Your task to perform on an android device: View the shopping cart on amazon.com. Add usb-a to the cart on amazon.com Image 0: 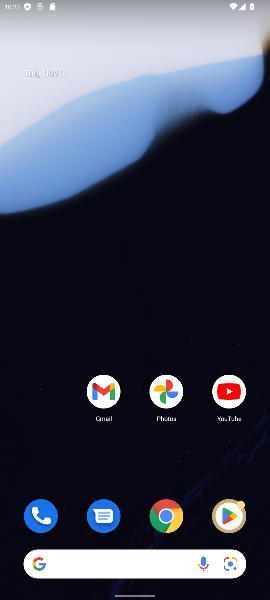
Step 0: click (155, 564)
Your task to perform on an android device: View the shopping cart on amazon.com. Add usb-a to the cart on amazon.com Image 1: 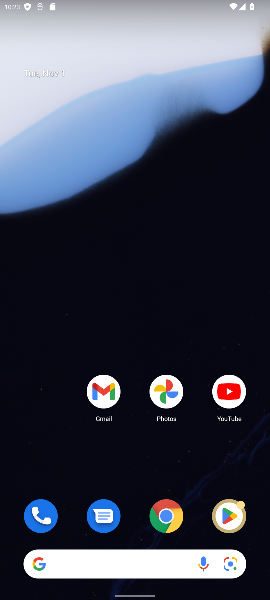
Step 1: click (98, 564)
Your task to perform on an android device: View the shopping cart on amazon.com. Add usb-a to the cart on amazon.com Image 2: 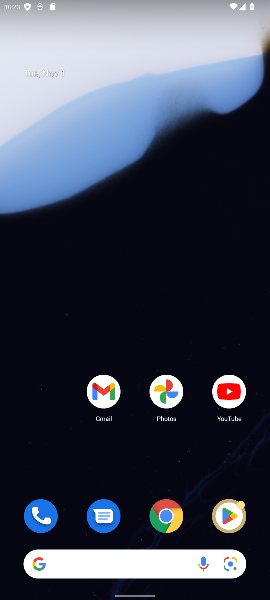
Step 2: type "usb-a on amazon.com"
Your task to perform on an android device: View the shopping cart on amazon.com. Add usb-a to the cart on amazon.com Image 3: 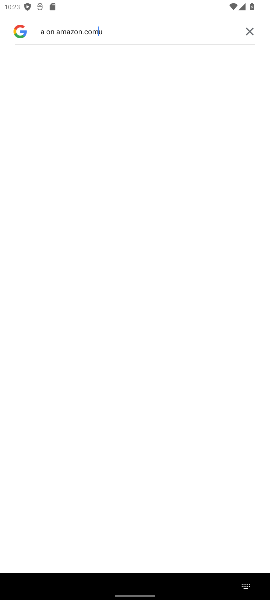
Step 3: click (83, 567)
Your task to perform on an android device: View the shopping cart on amazon.com. Add usb-a to the cart on amazon.com Image 4: 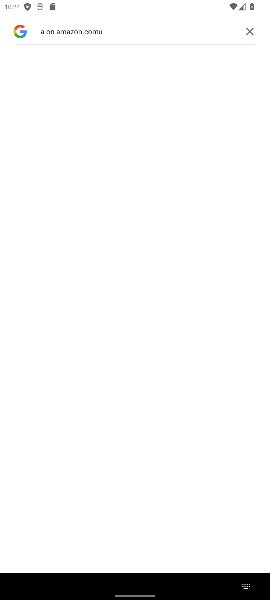
Step 4: click (252, 31)
Your task to perform on an android device: View the shopping cart on amazon.com. Add usb-a to the cart on amazon.com Image 5: 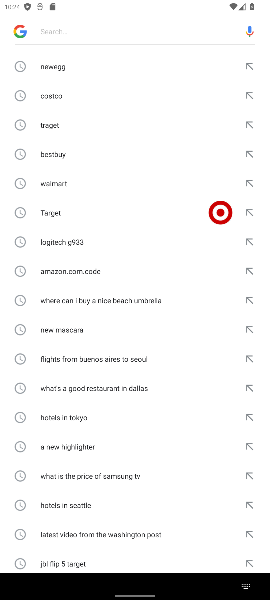
Step 5: type "amazon"
Your task to perform on an android device: View the shopping cart on amazon.com. Add usb-a to the cart on amazon.com Image 6: 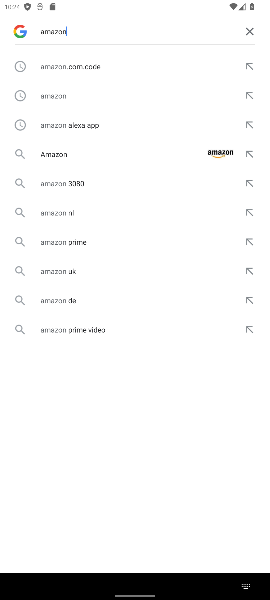
Step 6: click (61, 152)
Your task to perform on an android device: View the shopping cart on amazon.com. Add usb-a to the cart on amazon.com Image 7: 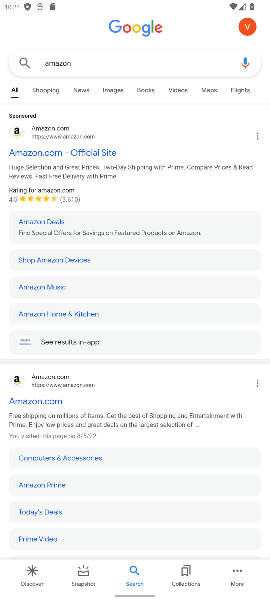
Step 7: click (44, 400)
Your task to perform on an android device: View the shopping cart on amazon.com. Add usb-a to the cart on amazon.com Image 8: 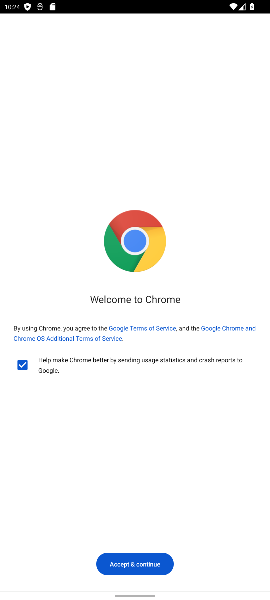
Step 8: click (143, 558)
Your task to perform on an android device: View the shopping cart on amazon.com. Add usb-a to the cart on amazon.com Image 9: 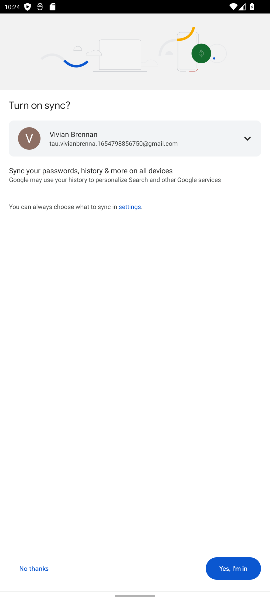
Step 9: click (245, 565)
Your task to perform on an android device: View the shopping cart on amazon.com. Add usb-a to the cart on amazon.com Image 10: 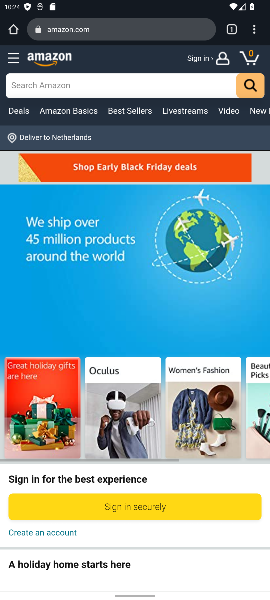
Step 10: click (47, 81)
Your task to perform on an android device: View the shopping cart on amazon.com. Add usb-a to the cart on amazon.com Image 11: 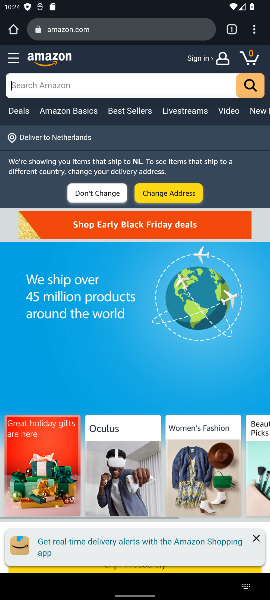
Step 11: type "usb-a "
Your task to perform on an android device: View the shopping cart on amazon.com. Add usb-a to the cart on amazon.com Image 12: 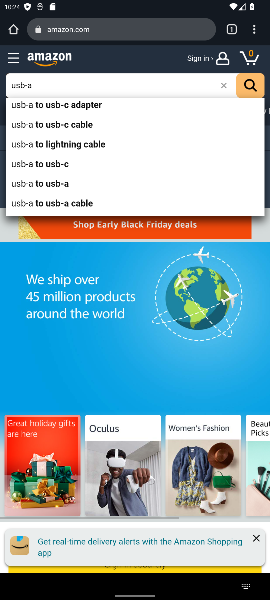
Step 12: click (57, 163)
Your task to perform on an android device: View the shopping cart on amazon.com. Add usb-a to the cart on amazon.com Image 13: 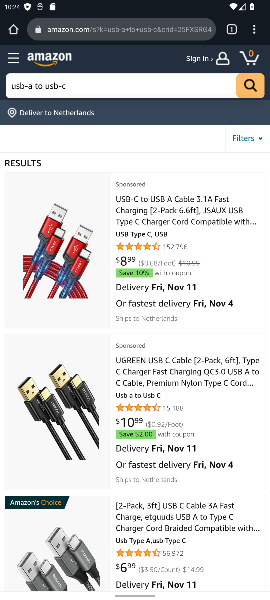
Step 13: click (171, 219)
Your task to perform on an android device: View the shopping cart on amazon.com. Add usb-a to the cart on amazon.com Image 14: 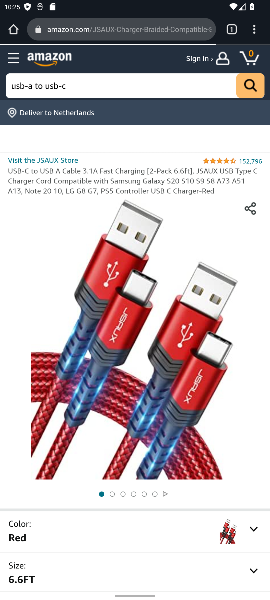
Step 14: drag from (92, 472) to (126, 205)
Your task to perform on an android device: View the shopping cart on amazon.com. Add usb-a to the cart on amazon.com Image 15: 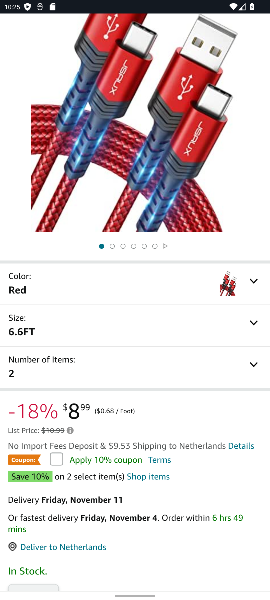
Step 15: drag from (140, 458) to (208, 293)
Your task to perform on an android device: View the shopping cart on amazon.com. Add usb-a to the cart on amazon.com Image 16: 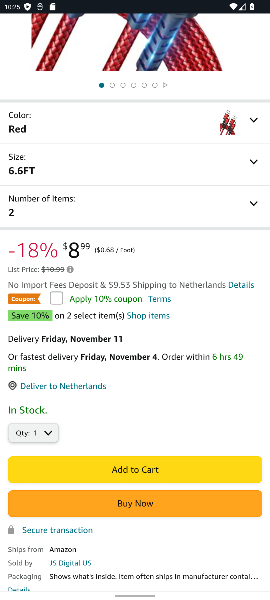
Step 16: click (116, 471)
Your task to perform on an android device: View the shopping cart on amazon.com. Add usb-a to the cart on amazon.com Image 17: 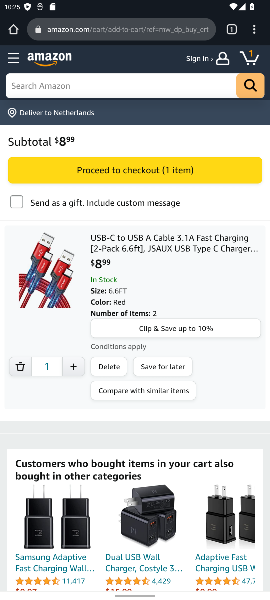
Step 17: task complete